Your task to perform on an android device: turn on priority inbox in the gmail app Image 0: 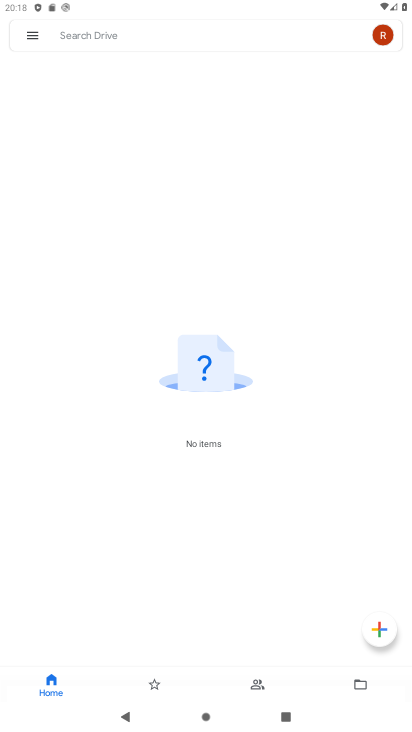
Step 0: press home button
Your task to perform on an android device: turn on priority inbox in the gmail app Image 1: 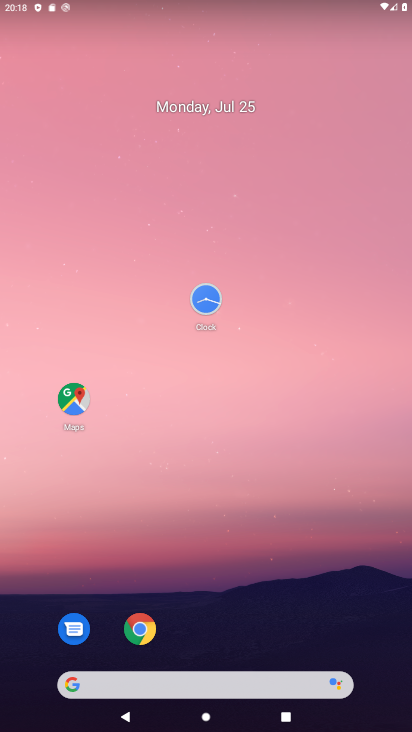
Step 1: drag from (220, 629) to (186, 135)
Your task to perform on an android device: turn on priority inbox in the gmail app Image 2: 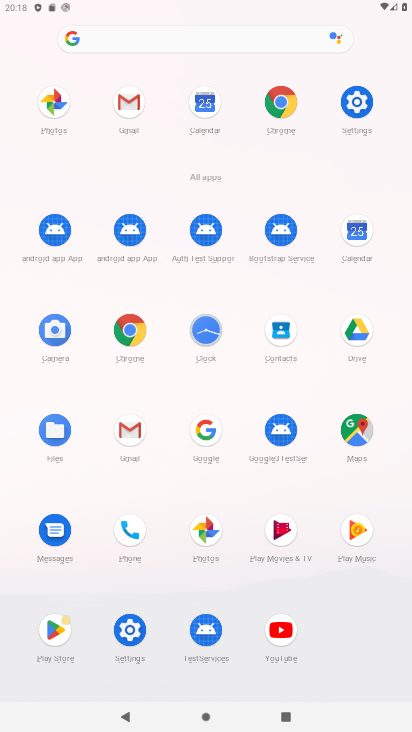
Step 2: click (129, 437)
Your task to perform on an android device: turn on priority inbox in the gmail app Image 3: 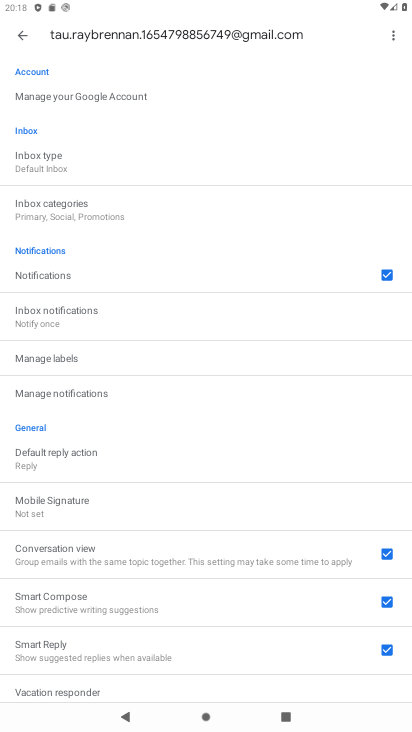
Step 3: click (50, 166)
Your task to perform on an android device: turn on priority inbox in the gmail app Image 4: 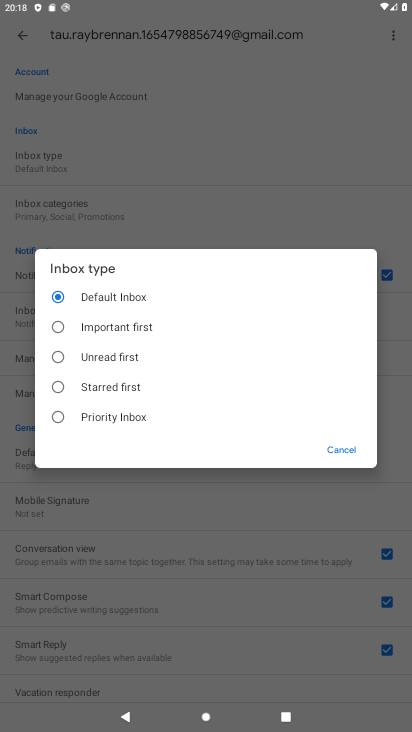
Step 4: click (106, 416)
Your task to perform on an android device: turn on priority inbox in the gmail app Image 5: 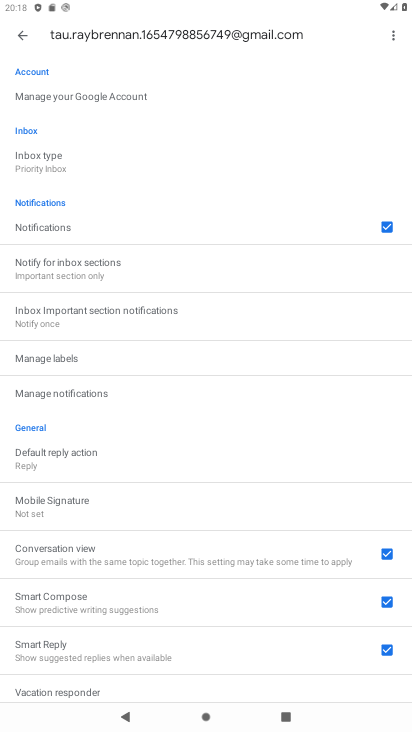
Step 5: task complete